Your task to perform on an android device: check android version Image 0: 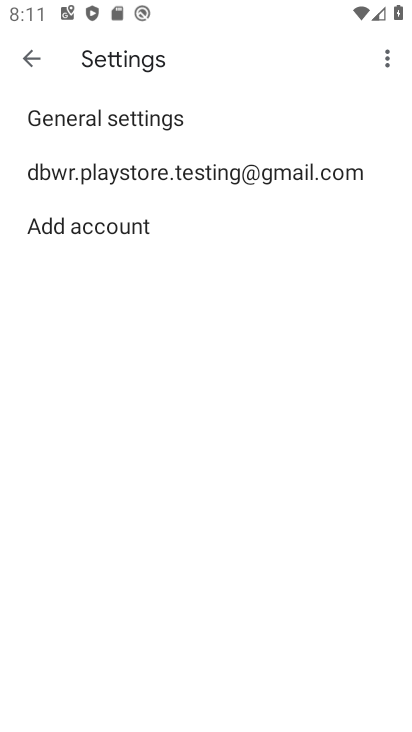
Step 0: press back button
Your task to perform on an android device: check android version Image 1: 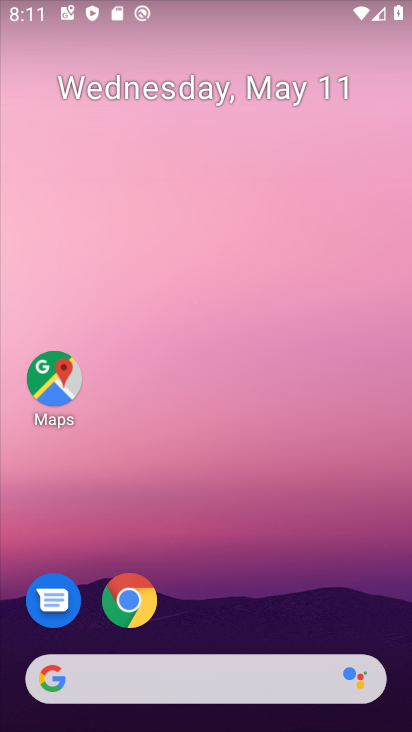
Step 1: drag from (283, 588) to (325, 54)
Your task to perform on an android device: check android version Image 2: 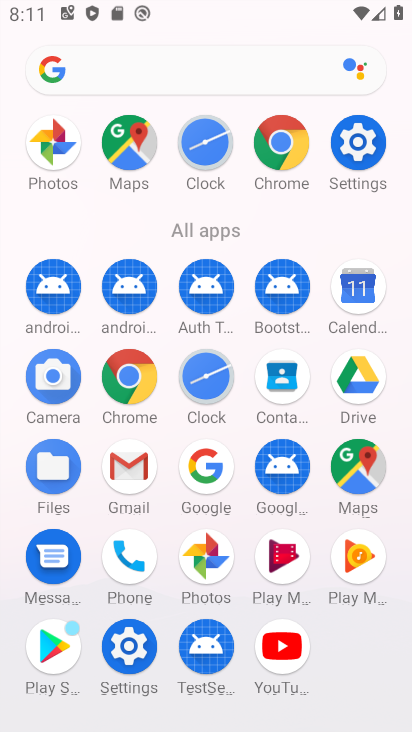
Step 2: click (359, 142)
Your task to perform on an android device: check android version Image 3: 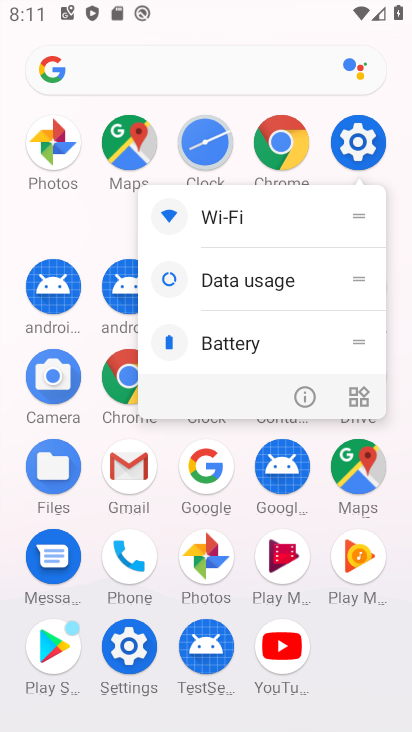
Step 3: click (359, 142)
Your task to perform on an android device: check android version Image 4: 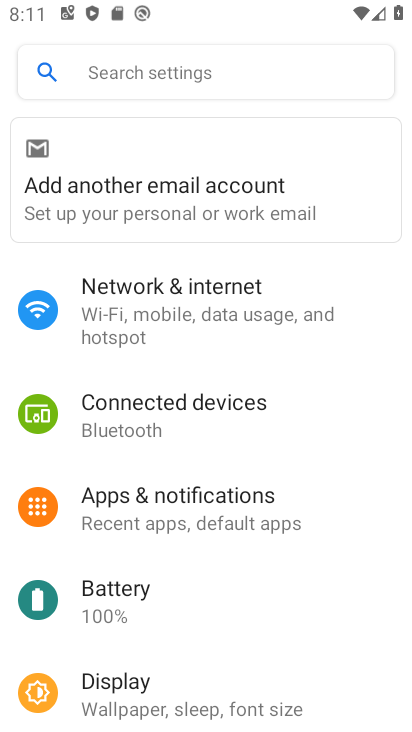
Step 4: drag from (177, 432) to (249, 300)
Your task to perform on an android device: check android version Image 5: 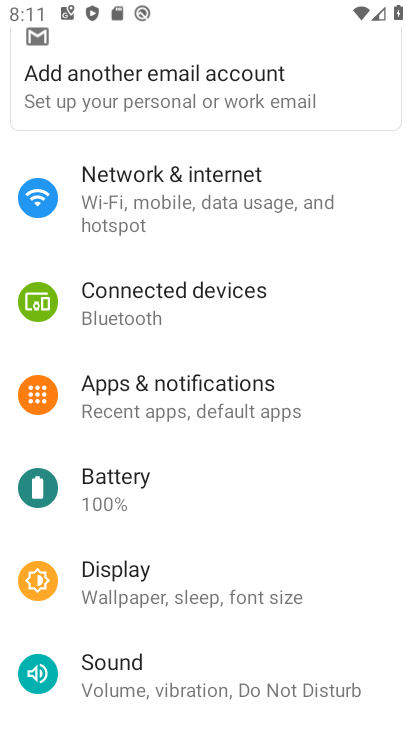
Step 5: drag from (177, 473) to (242, 361)
Your task to perform on an android device: check android version Image 6: 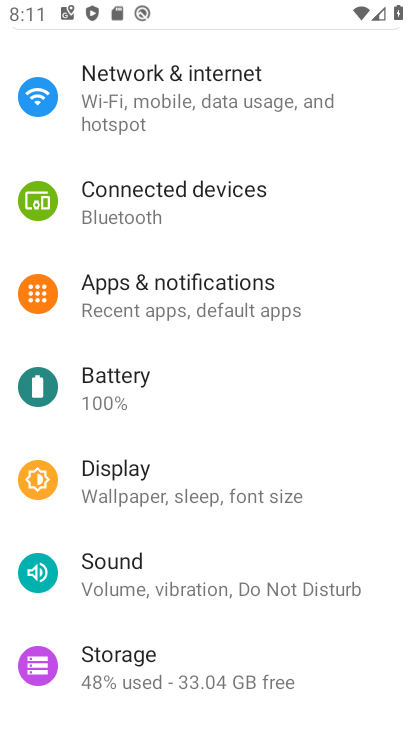
Step 6: drag from (159, 554) to (253, 401)
Your task to perform on an android device: check android version Image 7: 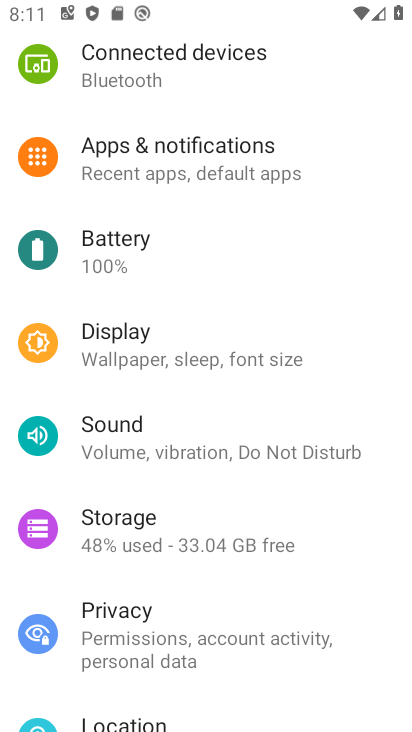
Step 7: drag from (165, 566) to (250, 441)
Your task to perform on an android device: check android version Image 8: 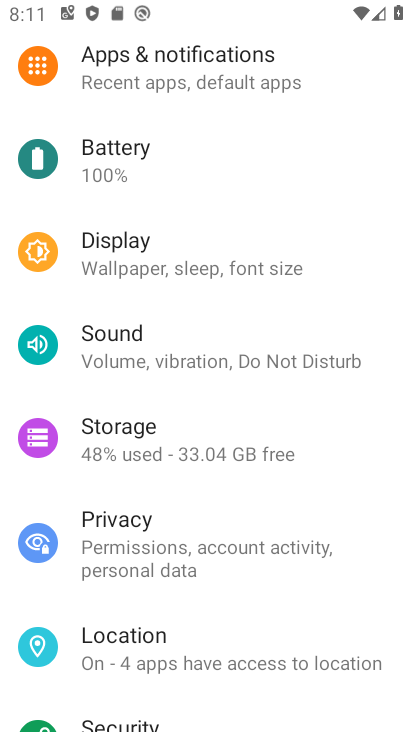
Step 8: drag from (158, 613) to (257, 415)
Your task to perform on an android device: check android version Image 9: 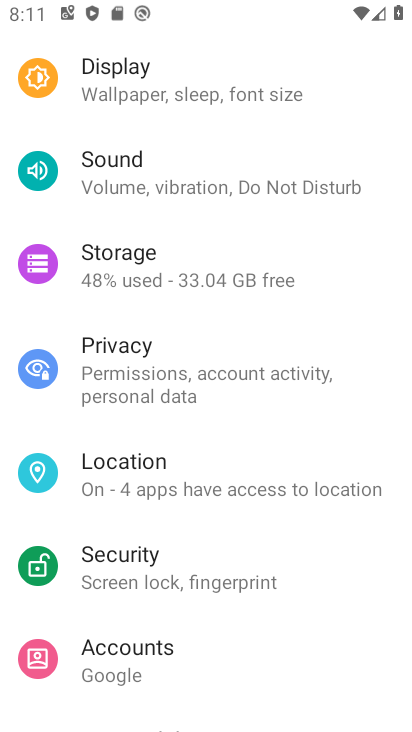
Step 9: drag from (120, 529) to (201, 407)
Your task to perform on an android device: check android version Image 10: 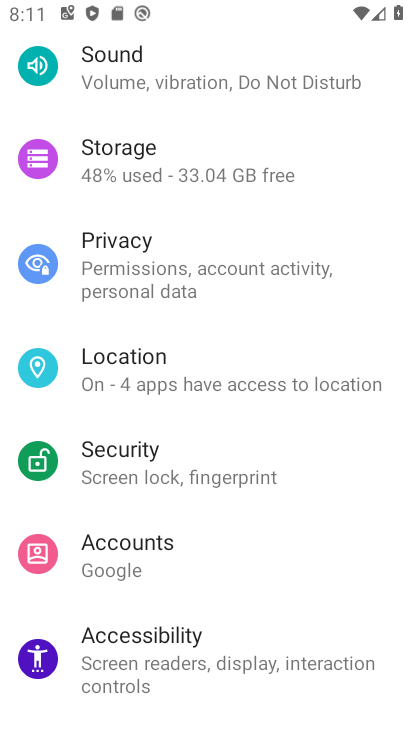
Step 10: drag from (131, 527) to (242, 401)
Your task to perform on an android device: check android version Image 11: 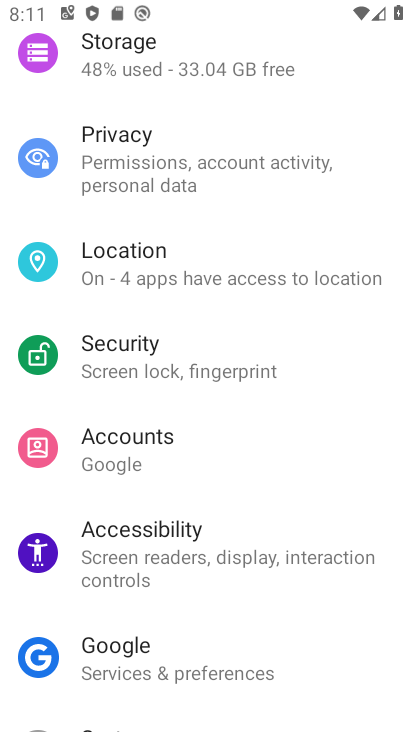
Step 11: drag from (131, 500) to (242, 379)
Your task to perform on an android device: check android version Image 12: 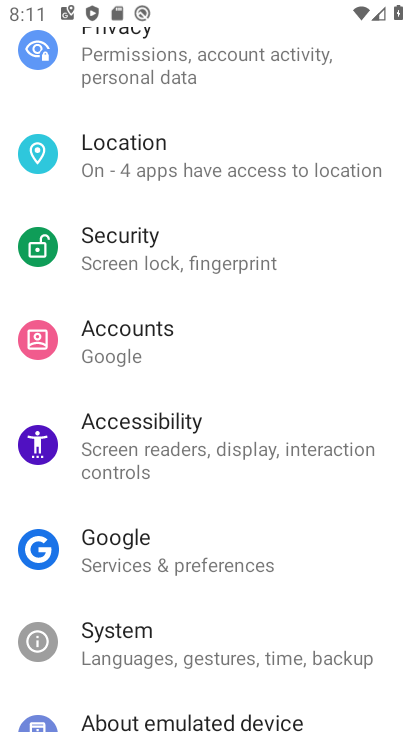
Step 12: drag from (113, 507) to (261, 346)
Your task to perform on an android device: check android version Image 13: 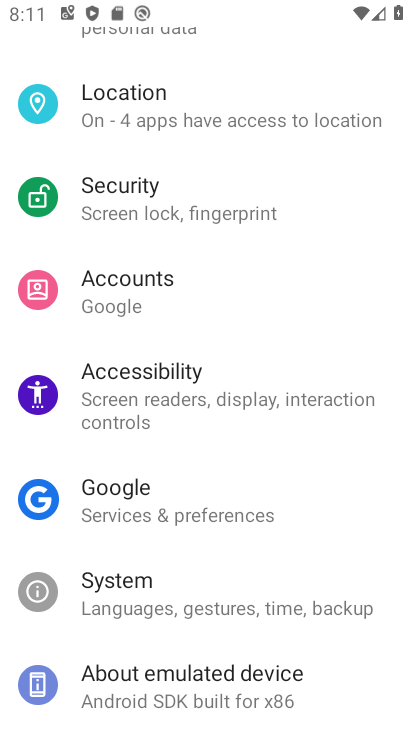
Step 13: click (186, 680)
Your task to perform on an android device: check android version Image 14: 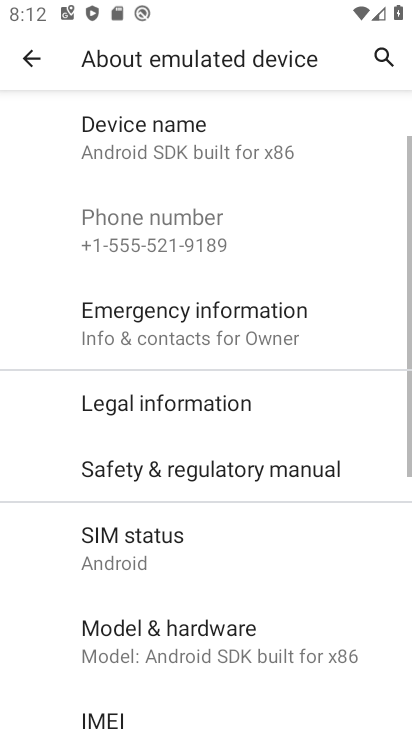
Step 14: drag from (190, 538) to (238, 419)
Your task to perform on an android device: check android version Image 15: 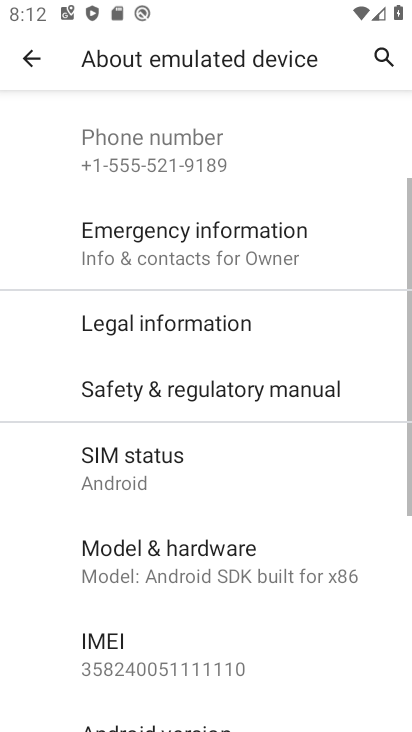
Step 15: drag from (193, 598) to (284, 452)
Your task to perform on an android device: check android version Image 16: 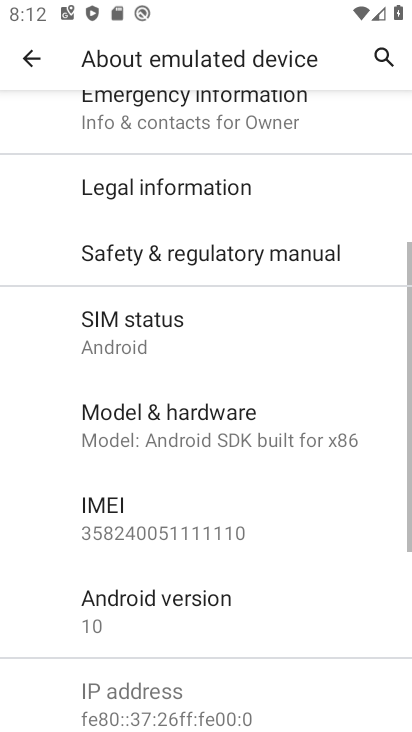
Step 16: click (201, 593)
Your task to perform on an android device: check android version Image 17: 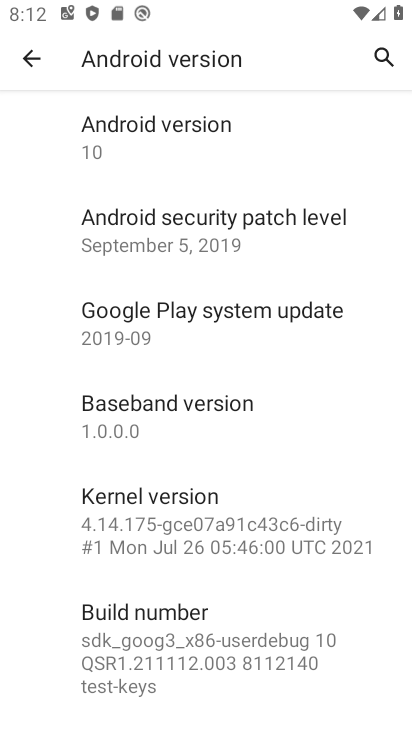
Step 17: task complete